Your task to perform on an android device: toggle translation in the chrome app Image 0: 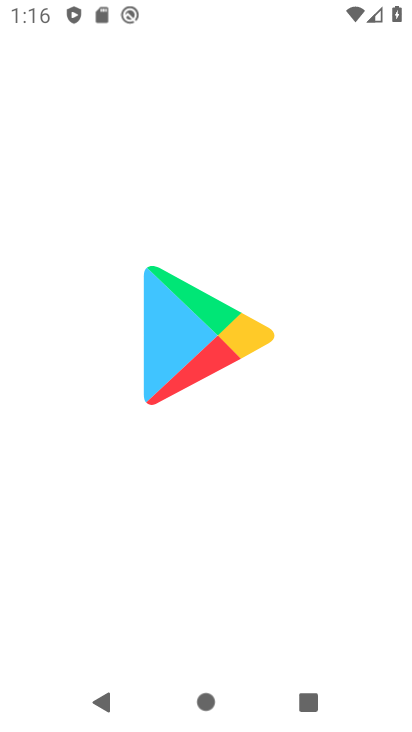
Step 0: press home button
Your task to perform on an android device: toggle translation in the chrome app Image 1: 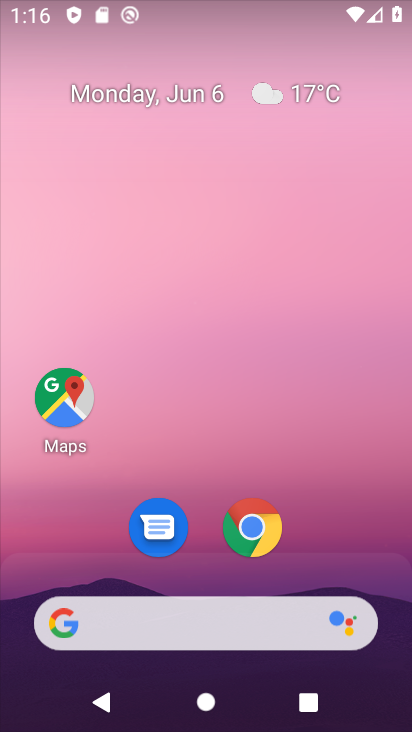
Step 1: drag from (252, 705) to (211, 83)
Your task to perform on an android device: toggle translation in the chrome app Image 2: 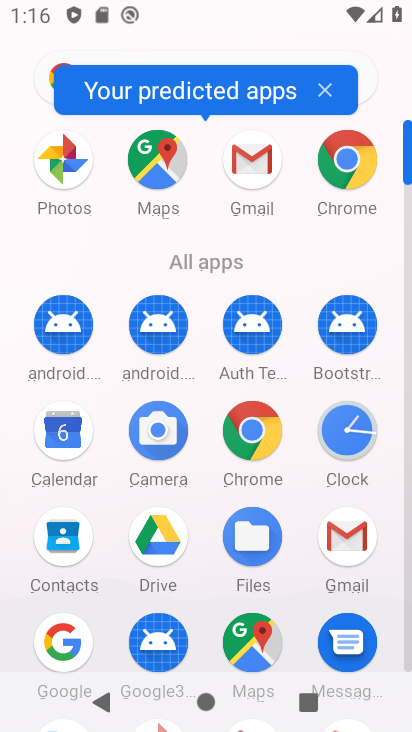
Step 2: click (253, 435)
Your task to perform on an android device: toggle translation in the chrome app Image 3: 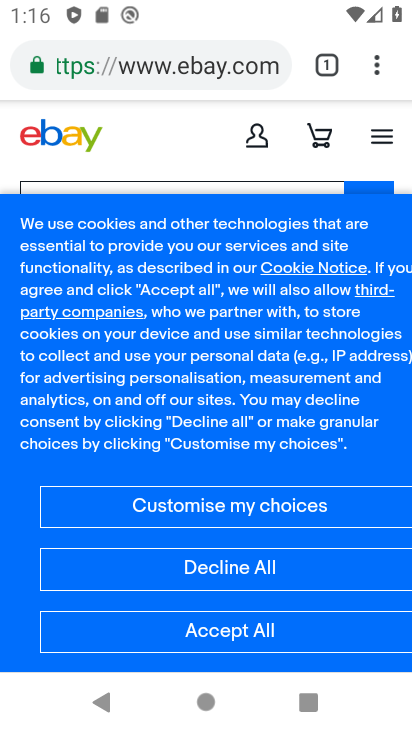
Step 3: click (378, 73)
Your task to perform on an android device: toggle translation in the chrome app Image 4: 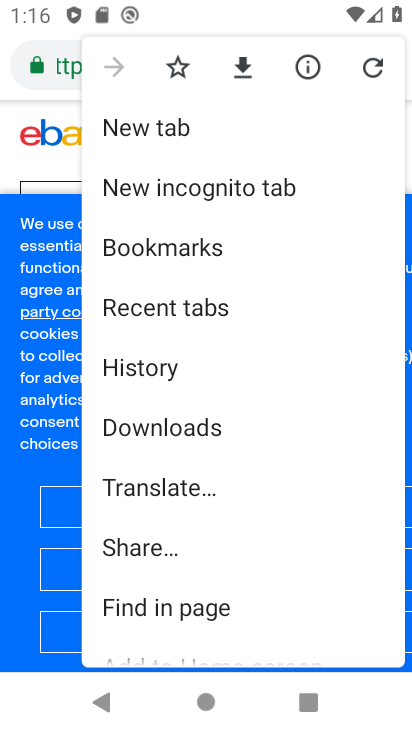
Step 4: drag from (165, 591) to (166, 229)
Your task to perform on an android device: toggle translation in the chrome app Image 5: 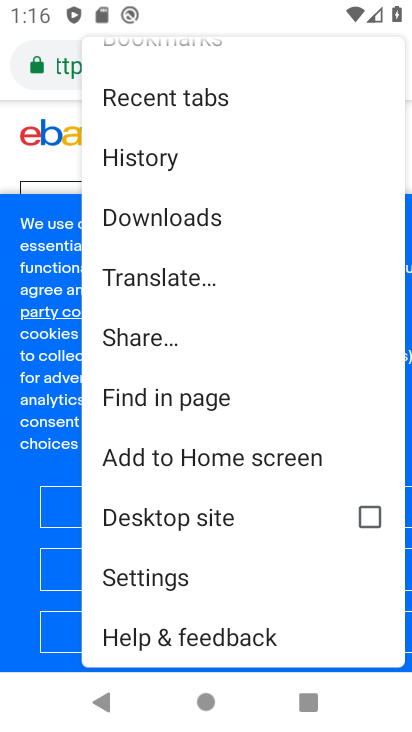
Step 5: click (159, 572)
Your task to perform on an android device: toggle translation in the chrome app Image 6: 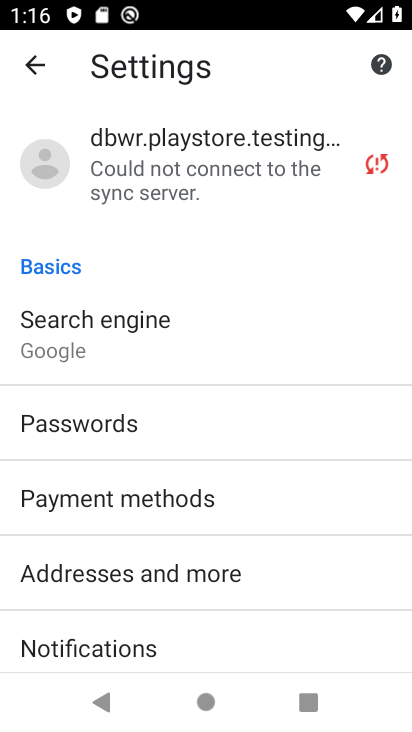
Step 6: drag from (174, 646) to (159, 285)
Your task to perform on an android device: toggle translation in the chrome app Image 7: 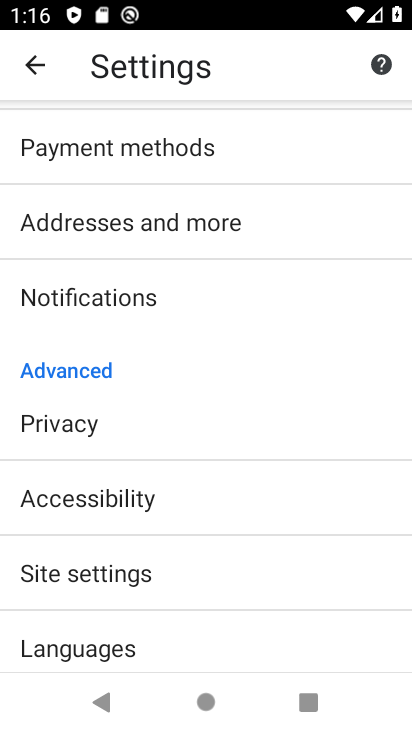
Step 7: drag from (120, 630) to (113, 426)
Your task to perform on an android device: toggle translation in the chrome app Image 8: 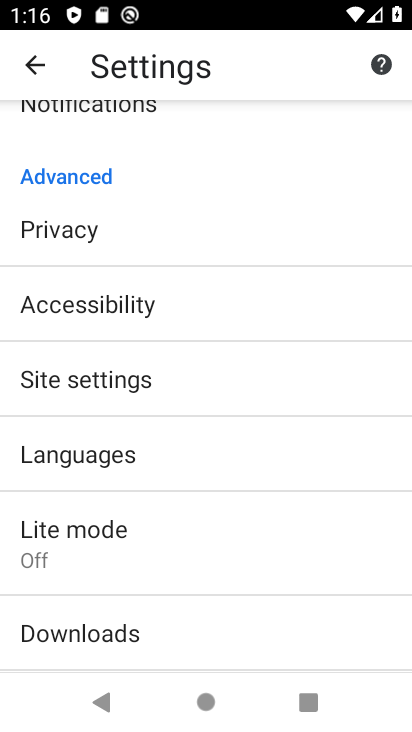
Step 8: click (85, 454)
Your task to perform on an android device: toggle translation in the chrome app Image 9: 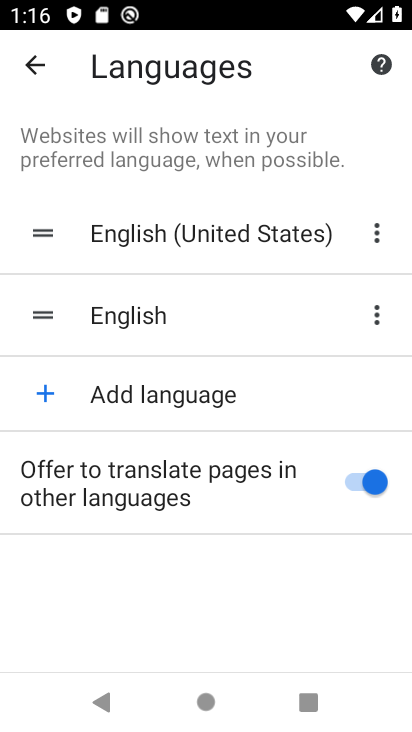
Step 9: click (368, 487)
Your task to perform on an android device: toggle translation in the chrome app Image 10: 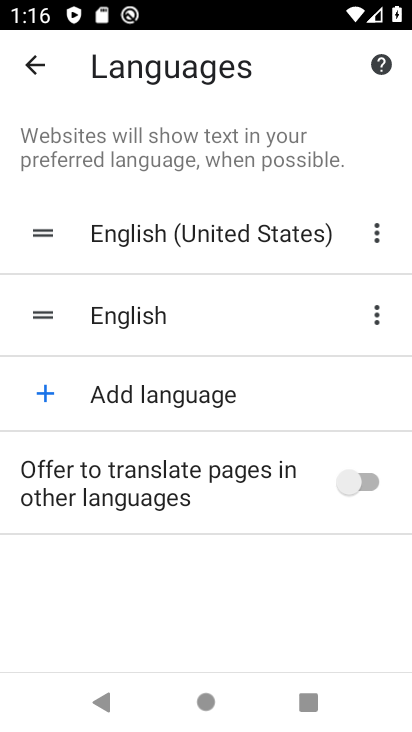
Step 10: task complete